Your task to perform on an android device: Go to Google Image 0: 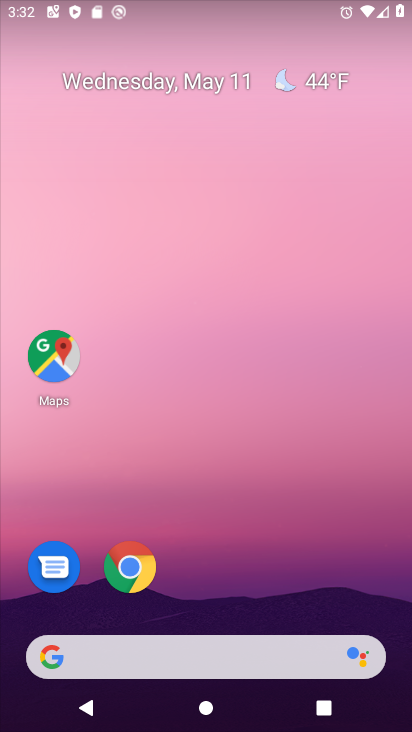
Step 0: drag from (212, 496) to (249, 45)
Your task to perform on an android device: Go to Google Image 1: 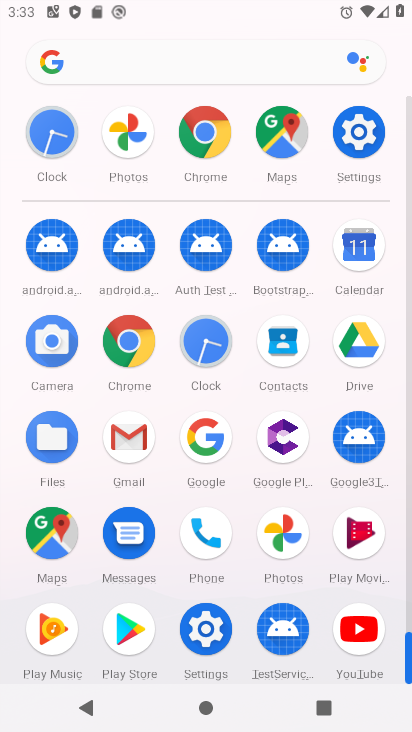
Step 1: drag from (0, 512) to (10, 137)
Your task to perform on an android device: Go to Google Image 2: 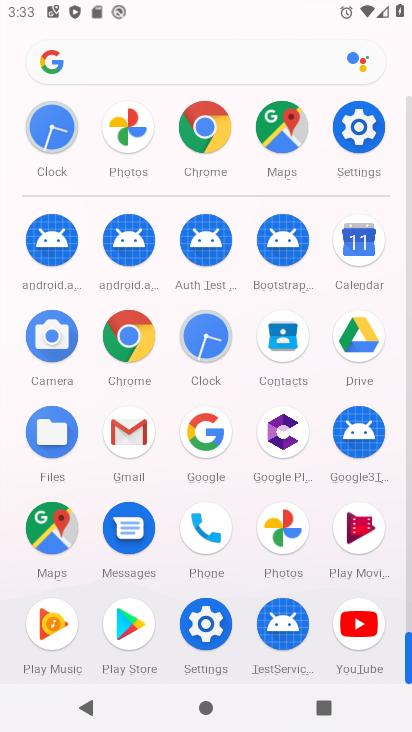
Step 2: click (121, 319)
Your task to perform on an android device: Go to Google Image 3: 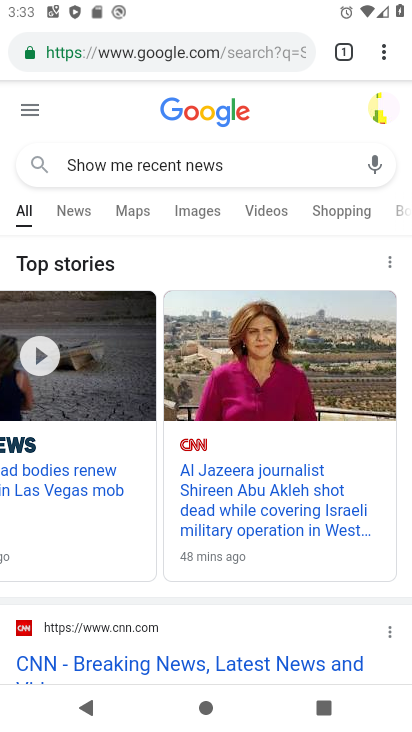
Step 3: click (169, 42)
Your task to perform on an android device: Go to Google Image 4: 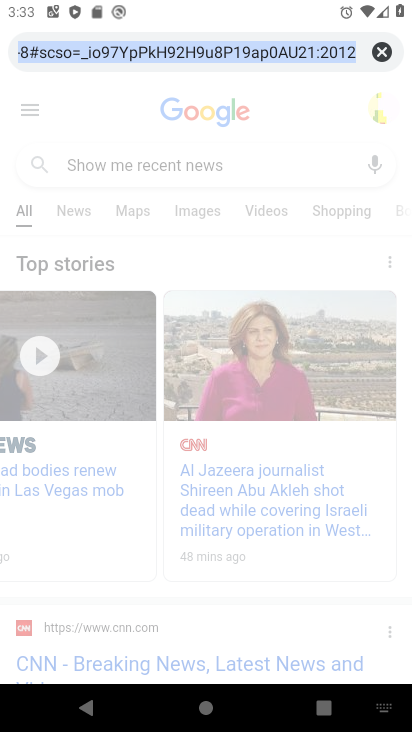
Step 4: click (381, 47)
Your task to perform on an android device: Go to Google Image 5: 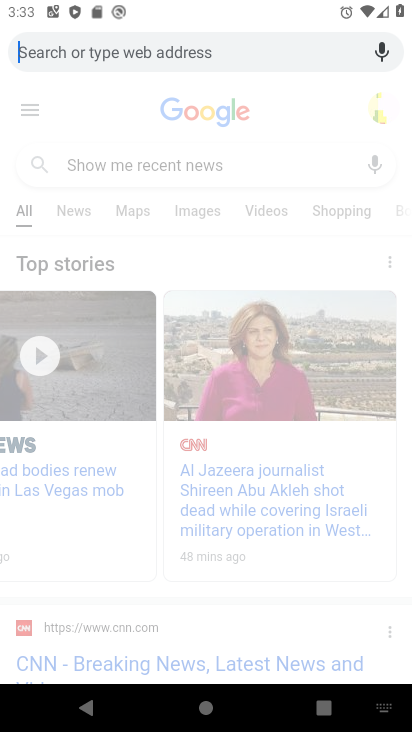
Step 5: click (137, 65)
Your task to perform on an android device: Go to Google Image 6: 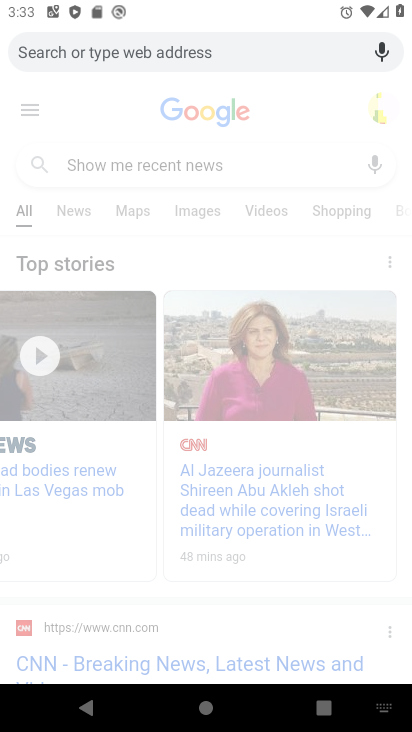
Step 6: type "Google"
Your task to perform on an android device: Go to Google Image 7: 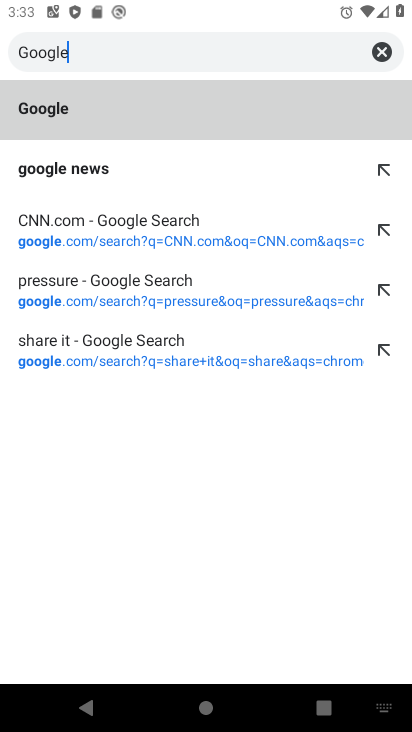
Step 7: click (118, 112)
Your task to perform on an android device: Go to Google Image 8: 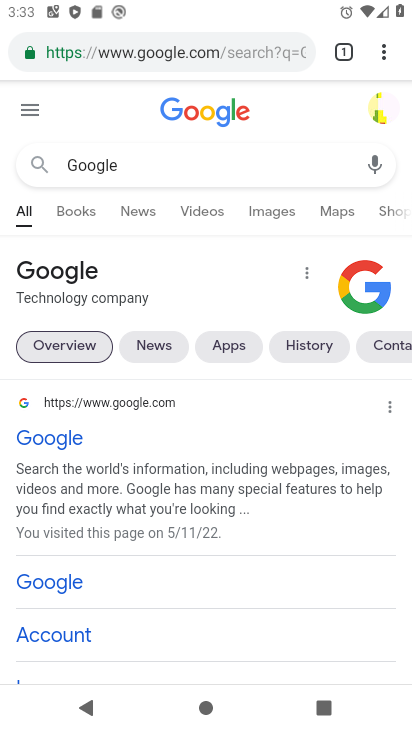
Step 8: drag from (142, 583) to (196, 307)
Your task to perform on an android device: Go to Google Image 9: 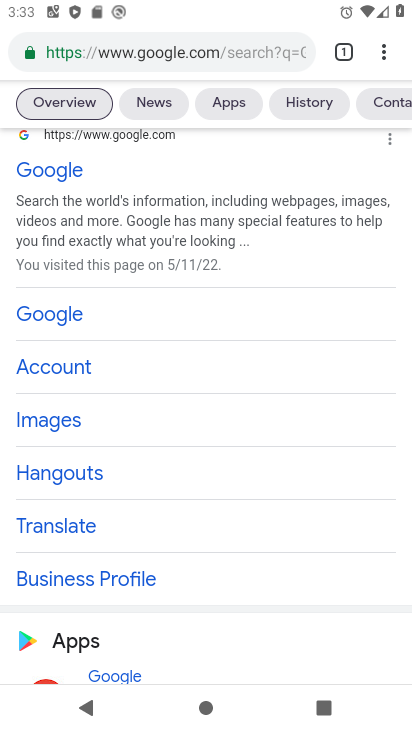
Step 9: click (55, 174)
Your task to perform on an android device: Go to Google Image 10: 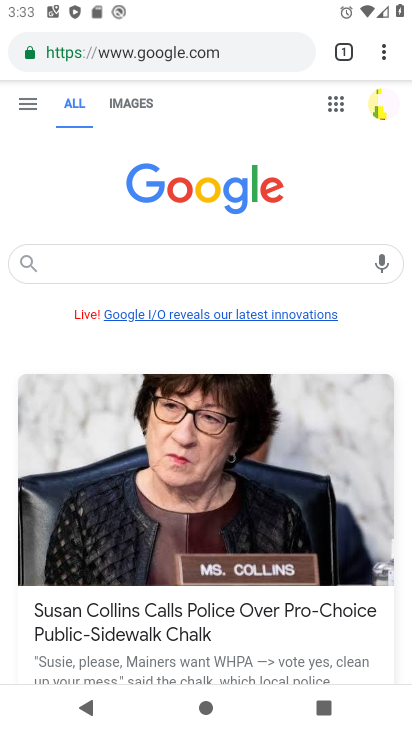
Step 10: task complete